Your task to perform on an android device: show emergency info Image 0: 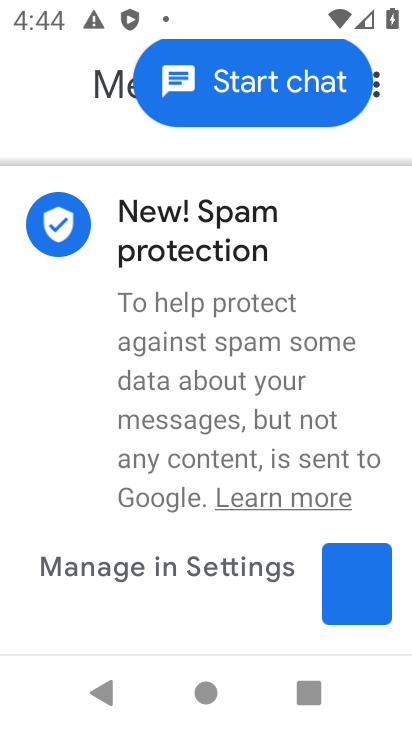
Step 0: press home button
Your task to perform on an android device: show emergency info Image 1: 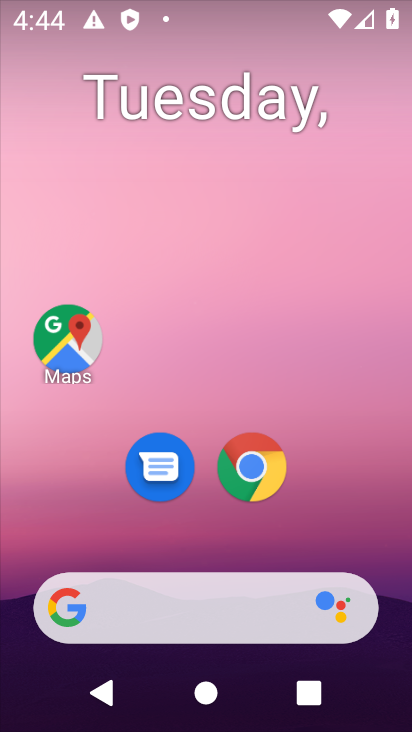
Step 1: drag from (133, 642) to (92, 199)
Your task to perform on an android device: show emergency info Image 2: 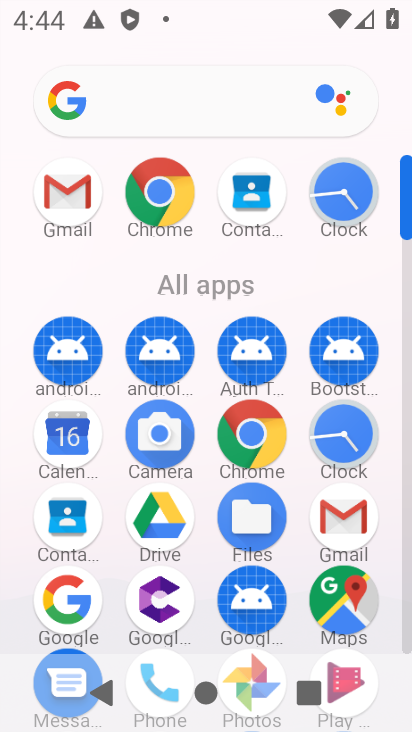
Step 2: drag from (386, 552) to (316, 171)
Your task to perform on an android device: show emergency info Image 3: 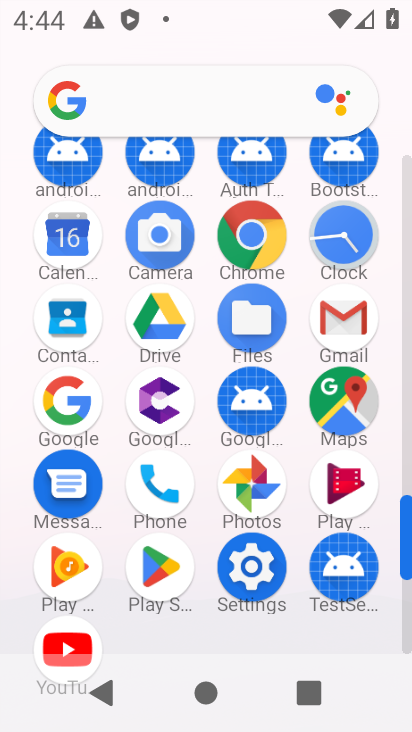
Step 3: click (246, 588)
Your task to perform on an android device: show emergency info Image 4: 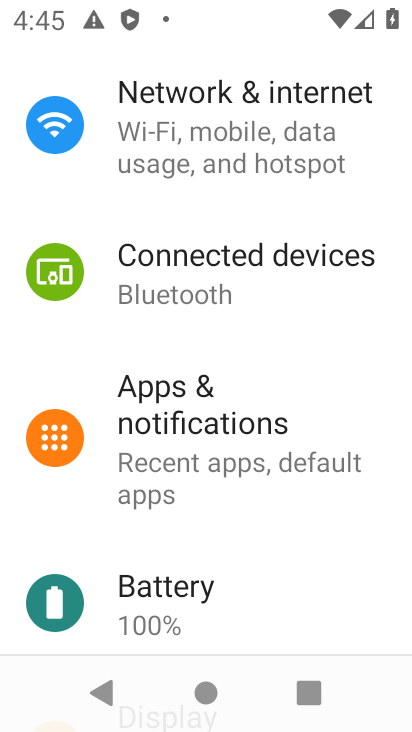
Step 4: drag from (192, 269) to (249, 620)
Your task to perform on an android device: show emergency info Image 5: 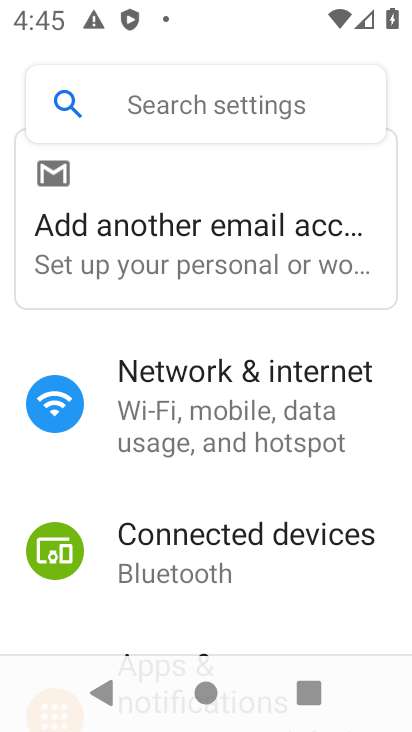
Step 5: drag from (168, 265) to (247, 591)
Your task to perform on an android device: show emergency info Image 6: 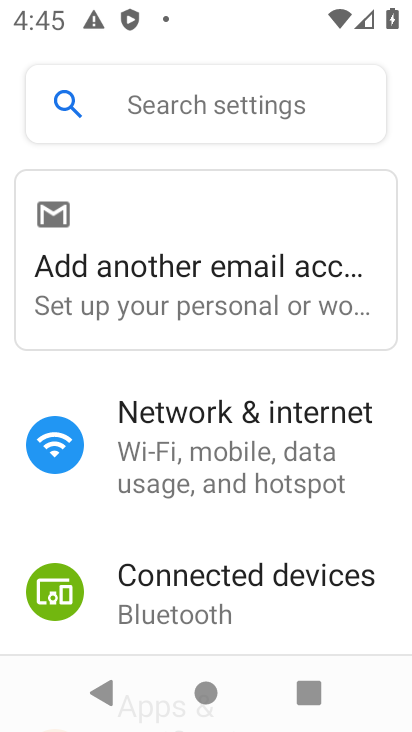
Step 6: drag from (167, 584) to (68, 150)
Your task to perform on an android device: show emergency info Image 7: 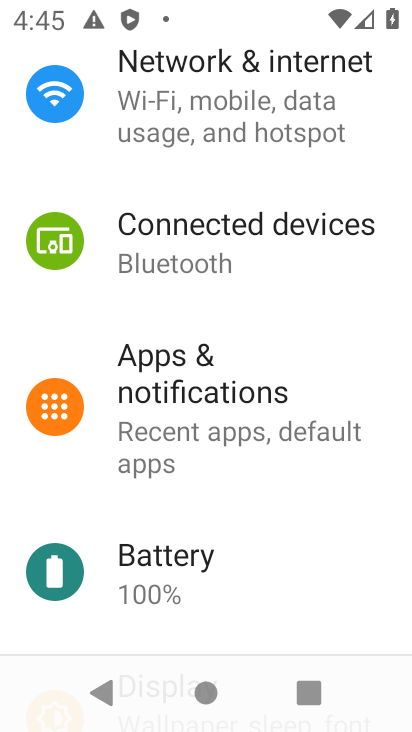
Step 7: drag from (207, 639) to (192, 155)
Your task to perform on an android device: show emergency info Image 8: 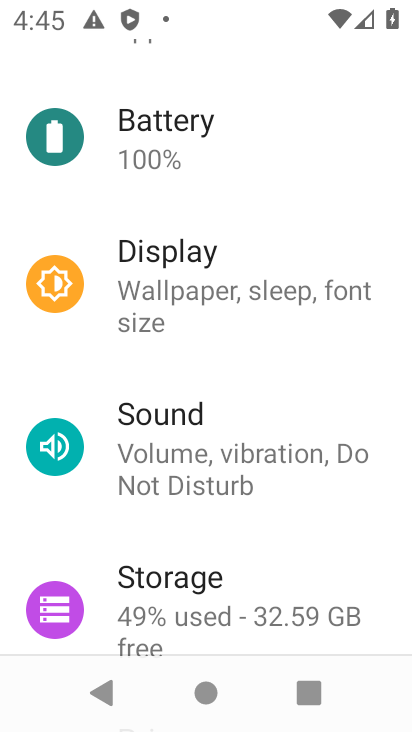
Step 8: drag from (224, 473) to (222, 111)
Your task to perform on an android device: show emergency info Image 9: 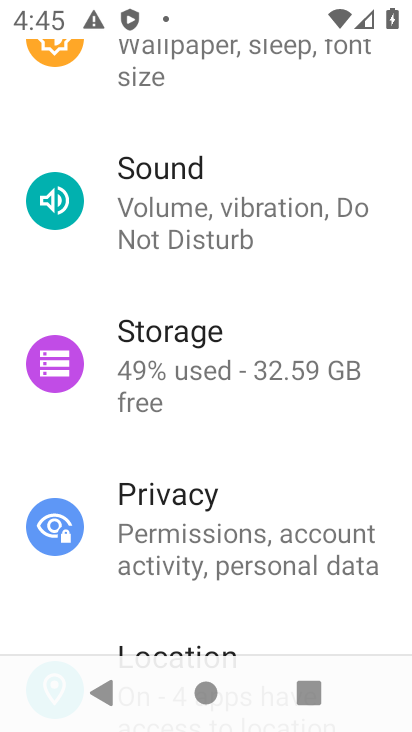
Step 9: drag from (277, 534) to (225, 129)
Your task to perform on an android device: show emergency info Image 10: 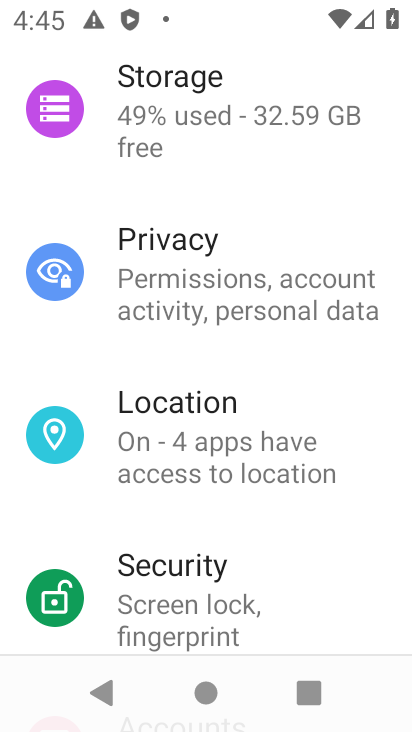
Step 10: drag from (247, 601) to (232, 158)
Your task to perform on an android device: show emergency info Image 11: 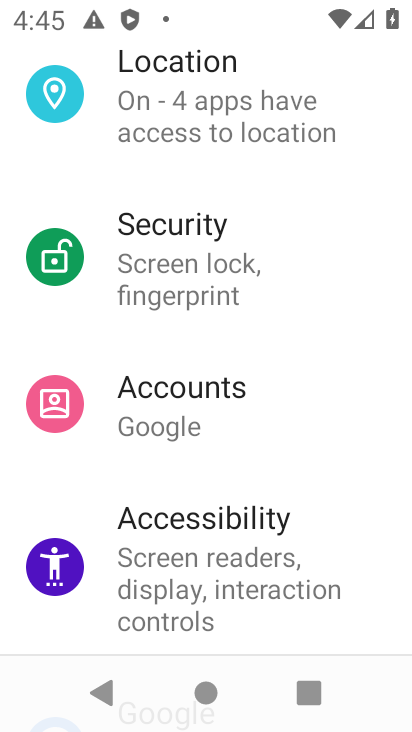
Step 11: drag from (234, 586) to (222, 204)
Your task to perform on an android device: show emergency info Image 12: 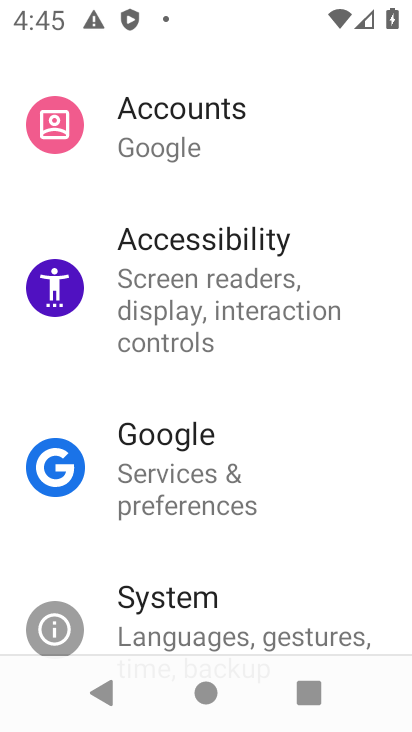
Step 12: drag from (258, 632) to (179, 164)
Your task to perform on an android device: show emergency info Image 13: 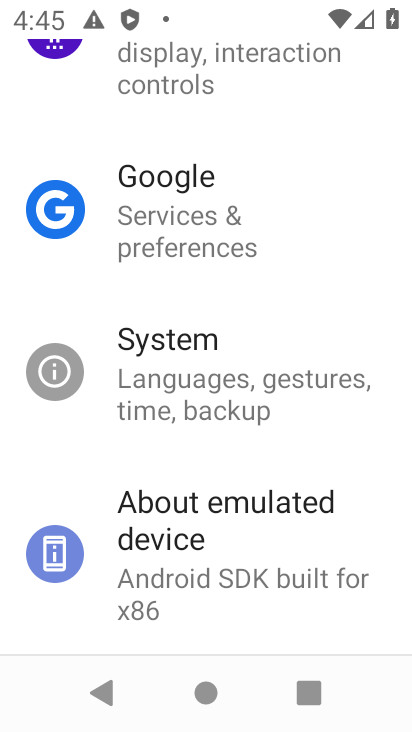
Step 13: drag from (265, 565) to (228, 232)
Your task to perform on an android device: show emergency info Image 14: 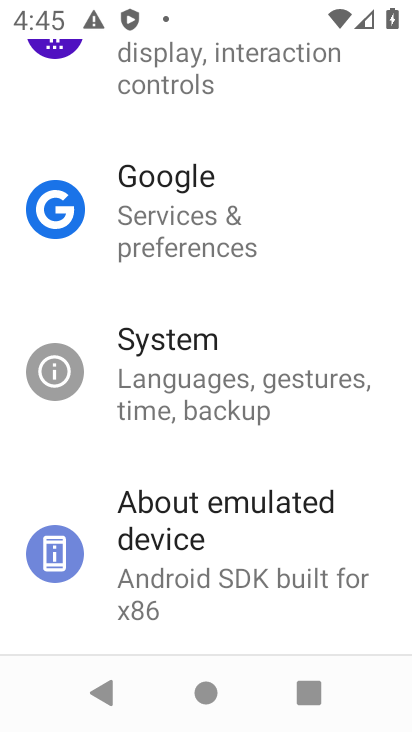
Step 14: click (198, 569)
Your task to perform on an android device: show emergency info Image 15: 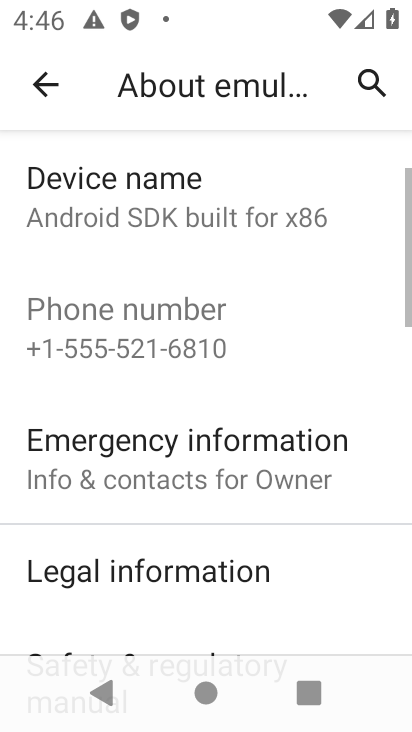
Step 15: click (82, 454)
Your task to perform on an android device: show emergency info Image 16: 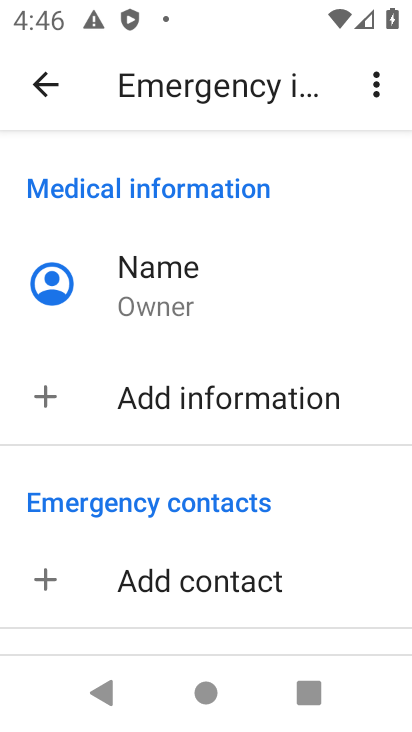
Step 16: task complete